Your task to perform on an android device: allow cookies in the chrome app Image 0: 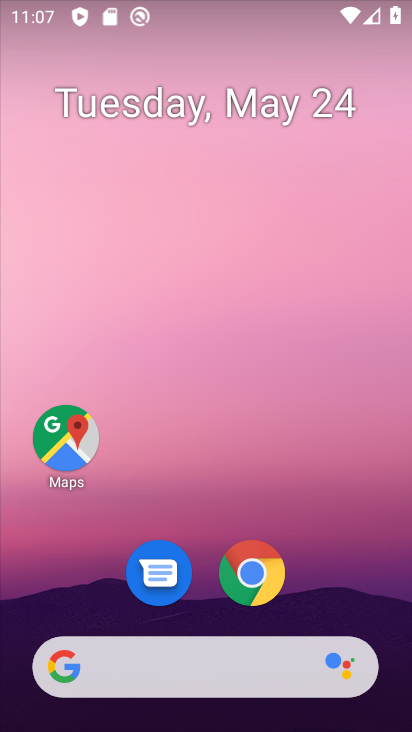
Step 0: drag from (69, 622) to (209, 179)
Your task to perform on an android device: allow cookies in the chrome app Image 1: 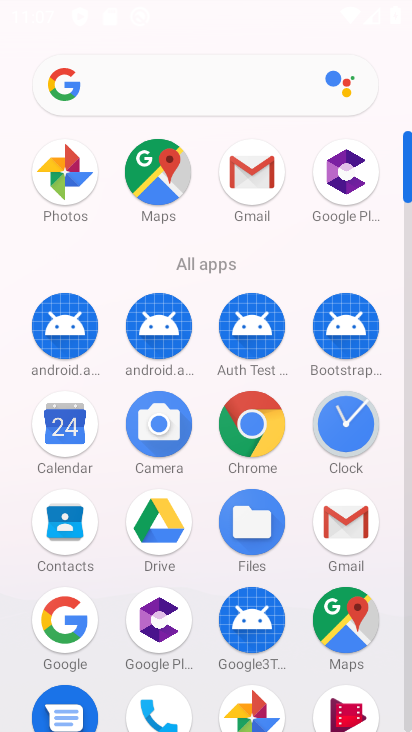
Step 1: click (241, 403)
Your task to perform on an android device: allow cookies in the chrome app Image 2: 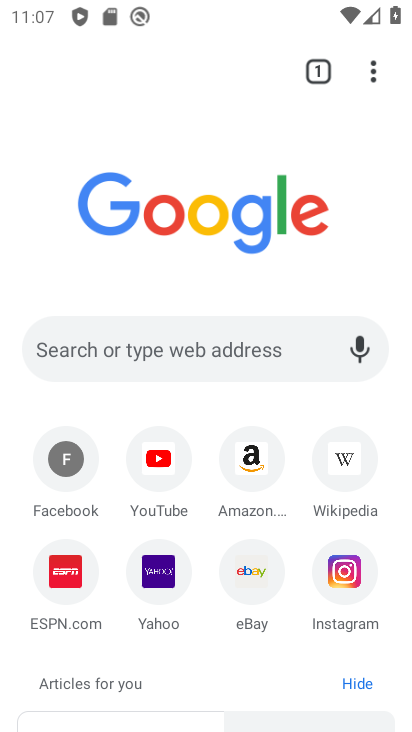
Step 2: drag from (367, 62) to (213, 602)
Your task to perform on an android device: allow cookies in the chrome app Image 3: 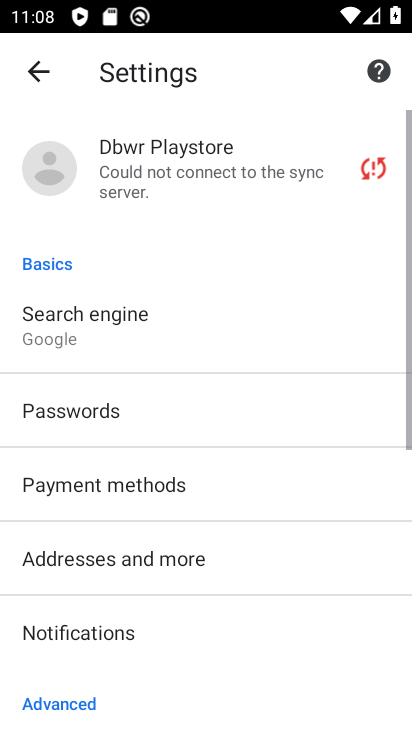
Step 3: drag from (167, 619) to (275, 203)
Your task to perform on an android device: allow cookies in the chrome app Image 4: 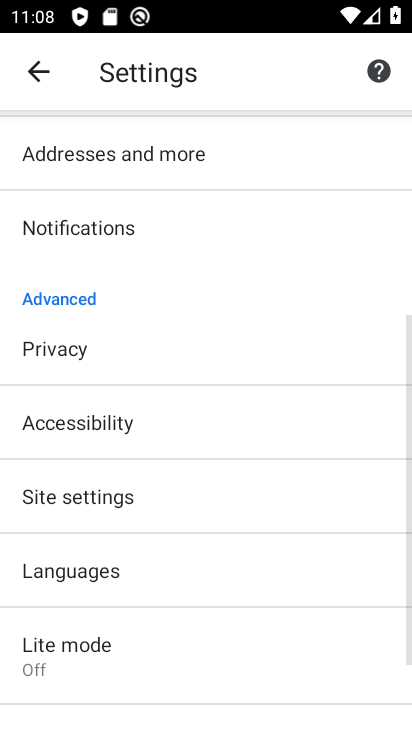
Step 4: drag from (180, 592) to (250, 309)
Your task to perform on an android device: allow cookies in the chrome app Image 5: 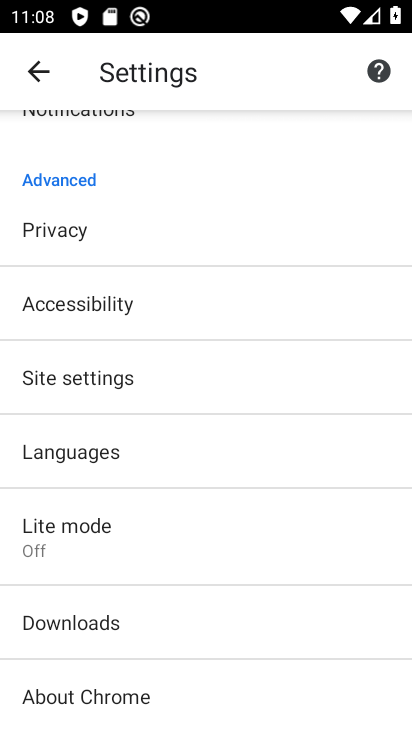
Step 5: drag from (237, 296) to (243, 398)
Your task to perform on an android device: allow cookies in the chrome app Image 6: 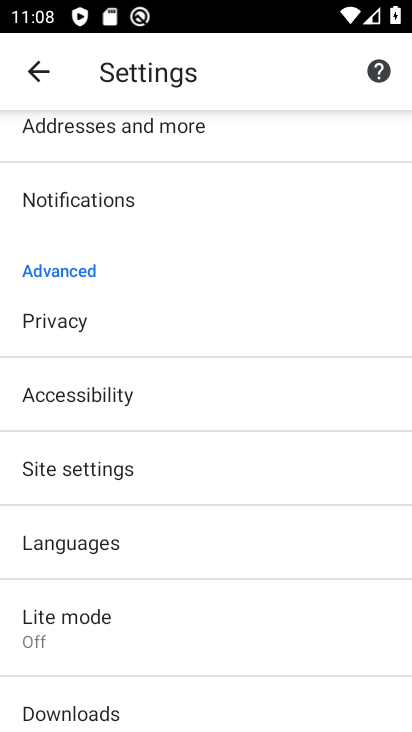
Step 6: click (120, 475)
Your task to perform on an android device: allow cookies in the chrome app Image 7: 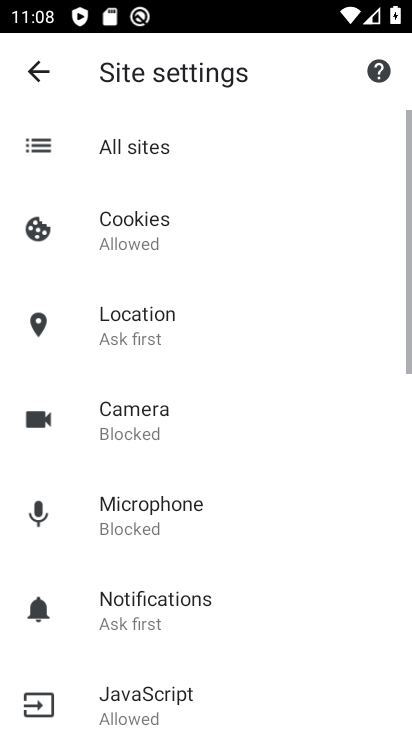
Step 7: drag from (161, 618) to (258, 288)
Your task to perform on an android device: allow cookies in the chrome app Image 8: 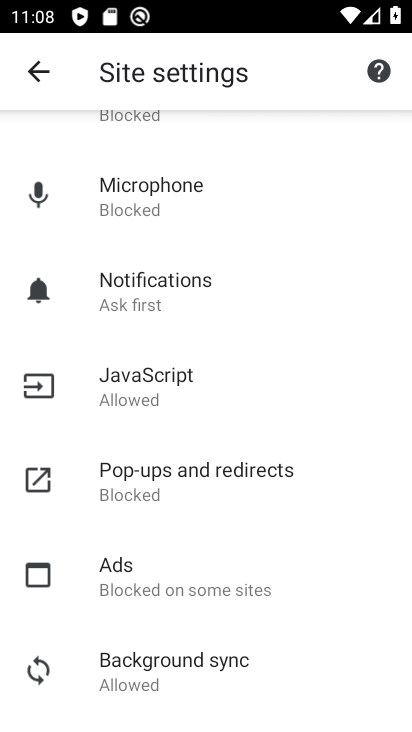
Step 8: drag from (175, 597) to (218, 679)
Your task to perform on an android device: allow cookies in the chrome app Image 9: 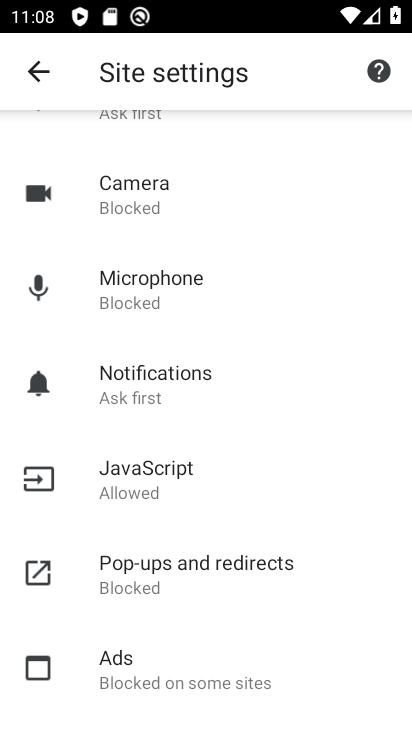
Step 9: drag from (276, 249) to (256, 699)
Your task to perform on an android device: allow cookies in the chrome app Image 10: 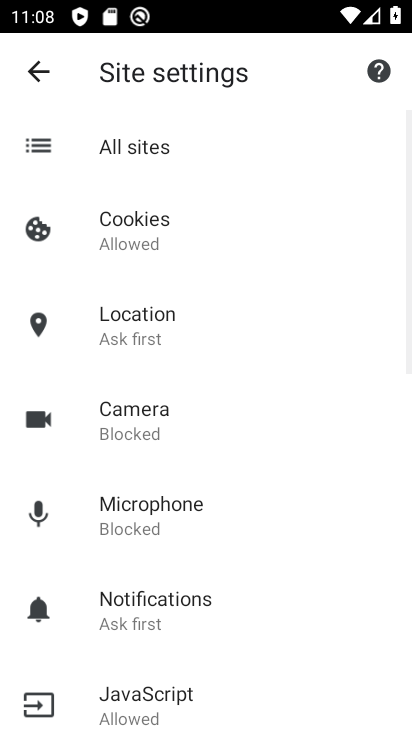
Step 10: click (181, 211)
Your task to perform on an android device: allow cookies in the chrome app Image 11: 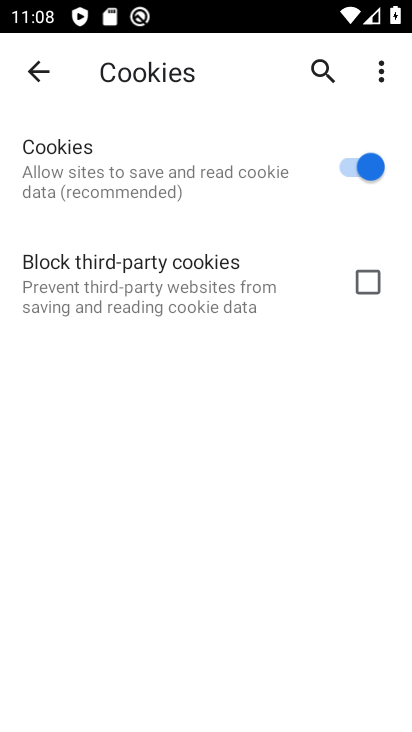
Step 11: task complete